Your task to perform on an android device: manage bookmarks in the chrome app Image 0: 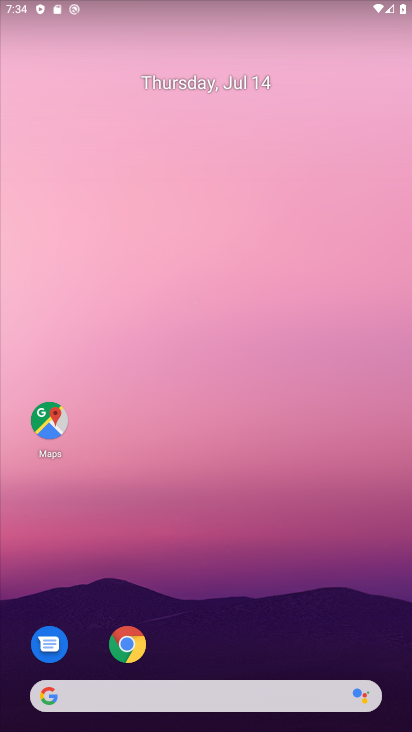
Step 0: click (123, 639)
Your task to perform on an android device: manage bookmarks in the chrome app Image 1: 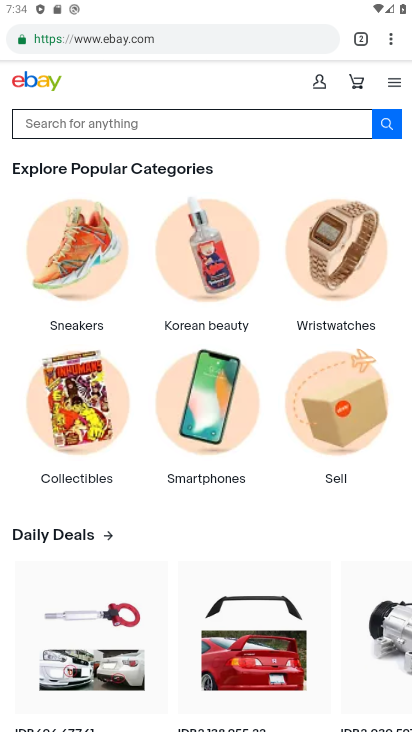
Step 1: drag from (395, 38) to (297, 196)
Your task to perform on an android device: manage bookmarks in the chrome app Image 2: 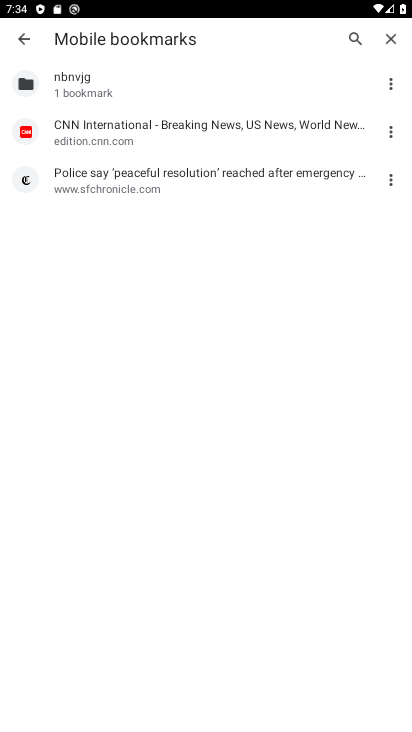
Step 2: click (387, 133)
Your task to perform on an android device: manage bookmarks in the chrome app Image 3: 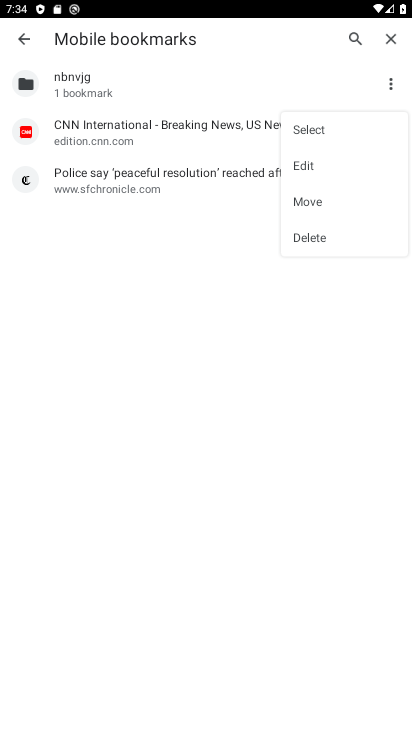
Step 3: click (314, 202)
Your task to perform on an android device: manage bookmarks in the chrome app Image 4: 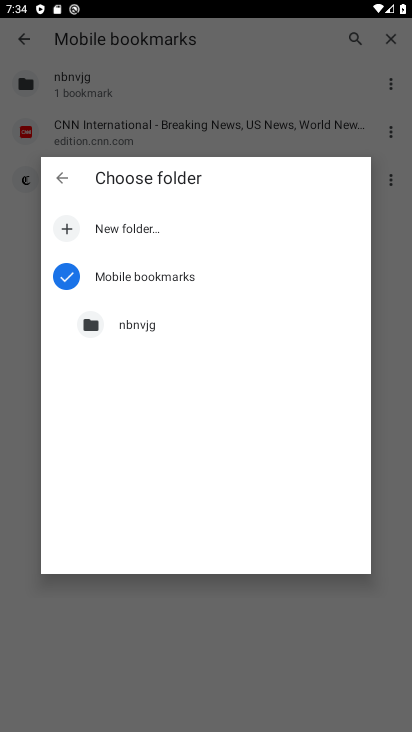
Step 4: click (149, 331)
Your task to perform on an android device: manage bookmarks in the chrome app Image 5: 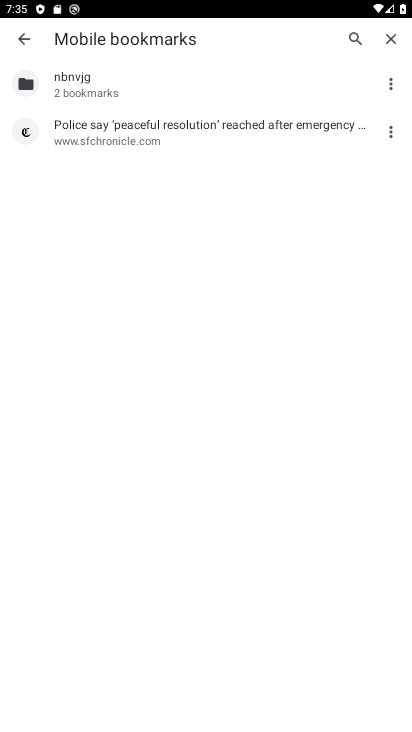
Step 5: task complete